Your task to perform on an android device: Show the shopping cart on amazon.com. Add logitech g pro to the cart on amazon.com Image 0: 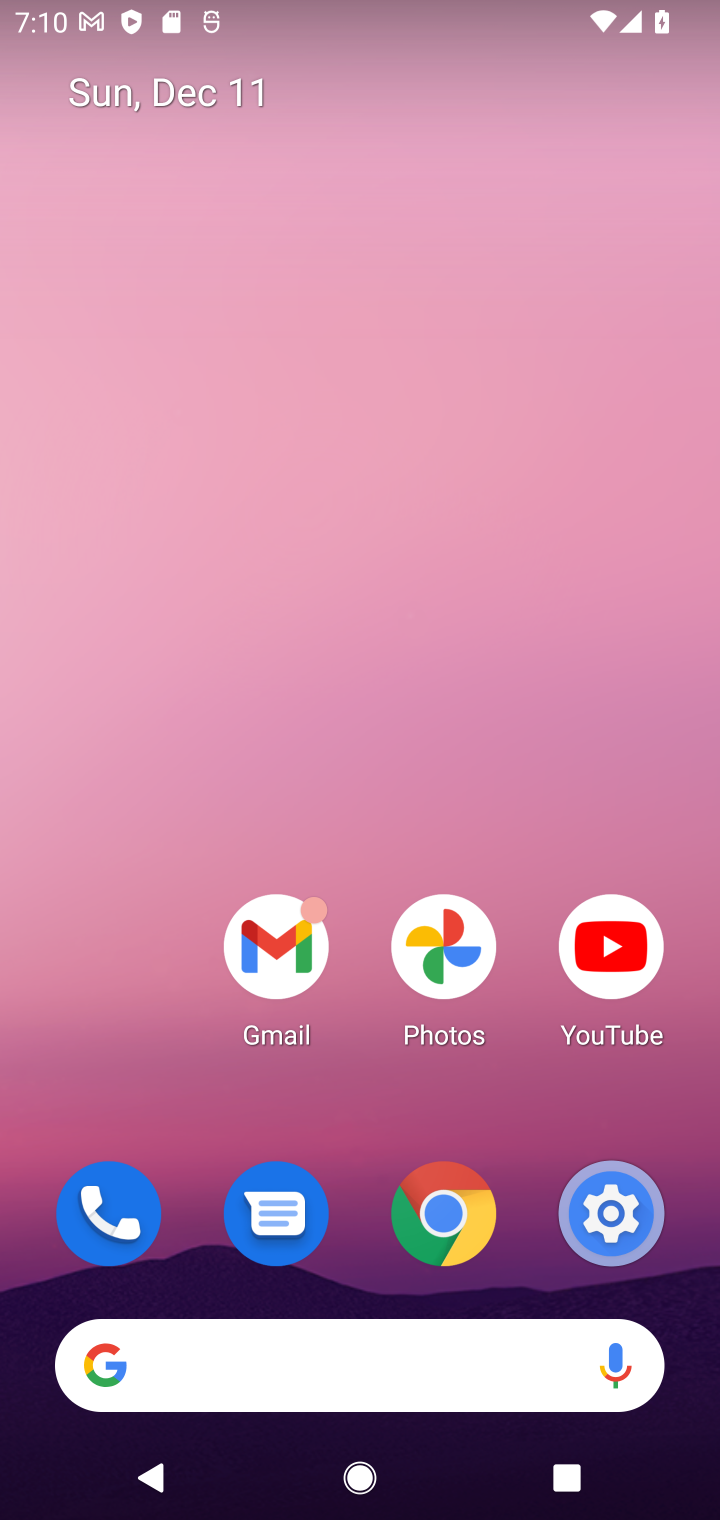
Step 0: click (231, 1370)
Your task to perform on an android device: Show the shopping cart on amazon.com. Add logitech g pro to the cart on amazon.com Image 1: 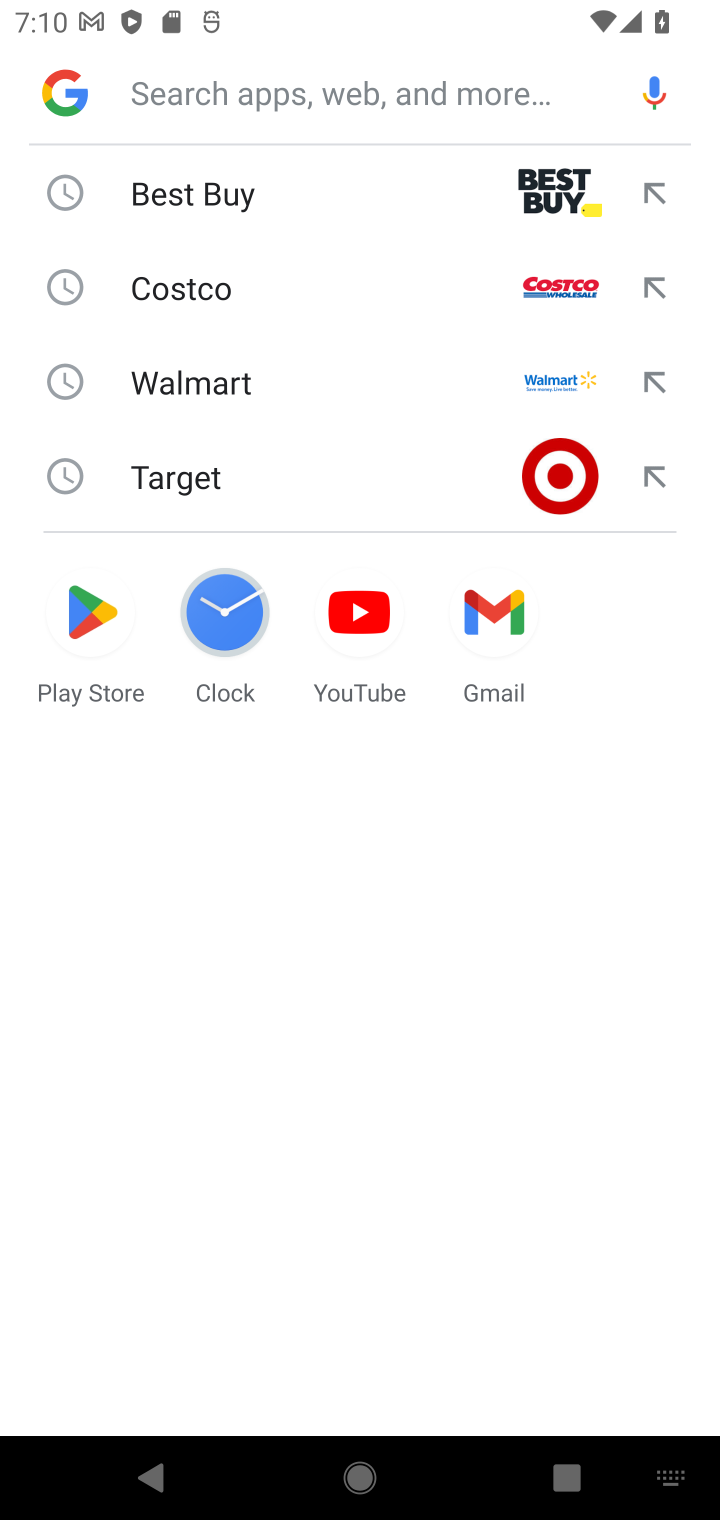
Step 1: type "amazon"
Your task to perform on an android device: Show the shopping cart on amazon.com. Add logitech g pro to the cart on amazon.com Image 2: 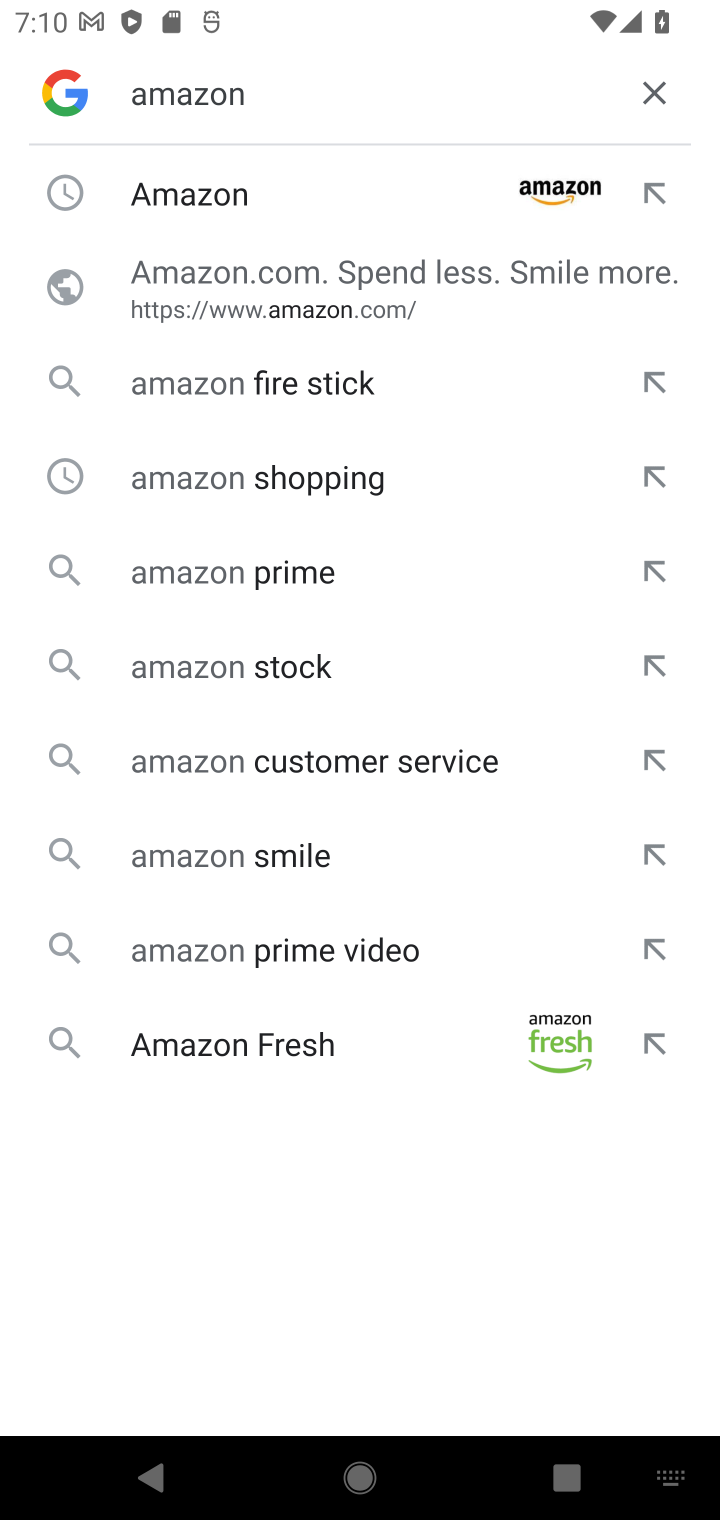
Step 2: click (157, 209)
Your task to perform on an android device: Show the shopping cart on amazon.com. Add logitech g pro to the cart on amazon.com Image 3: 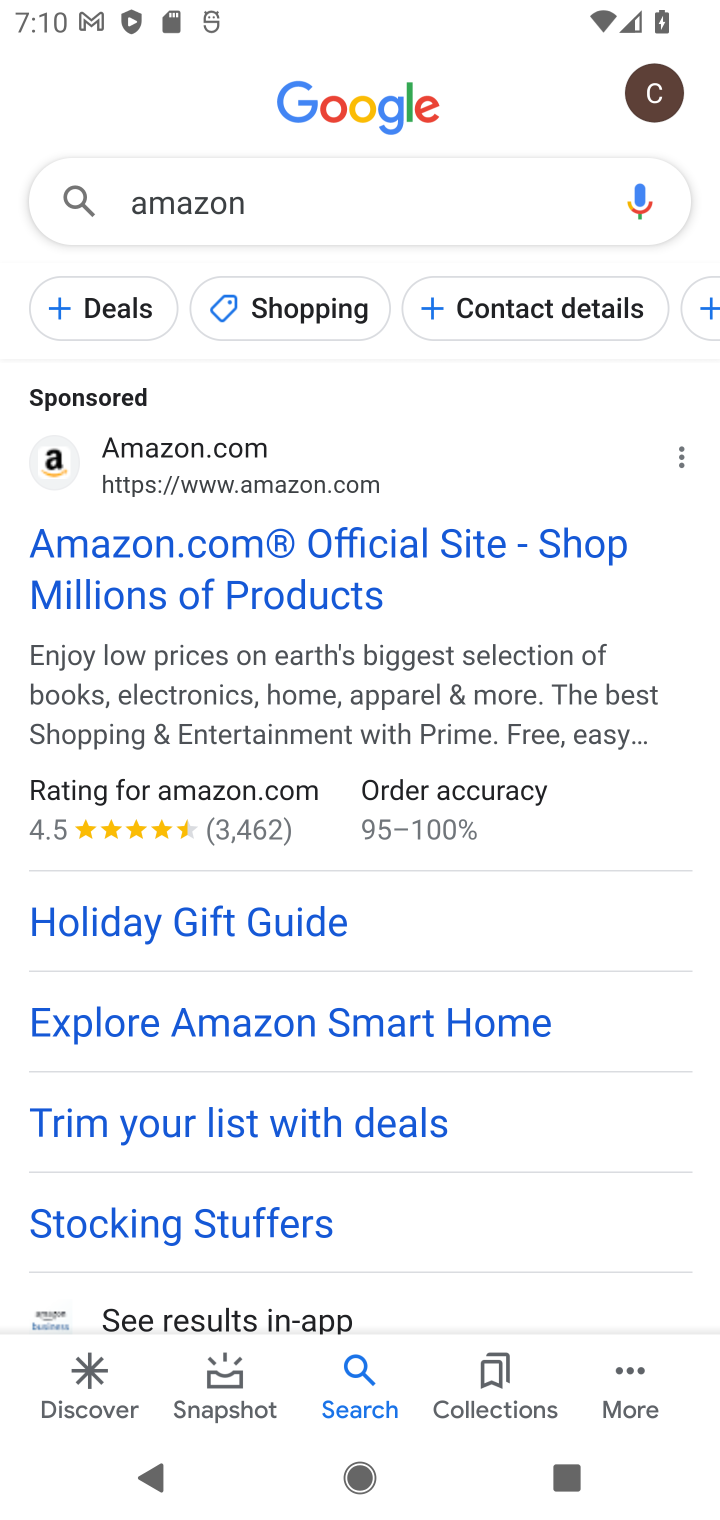
Step 3: click (247, 535)
Your task to perform on an android device: Show the shopping cart on amazon.com. Add logitech g pro to the cart on amazon.com Image 4: 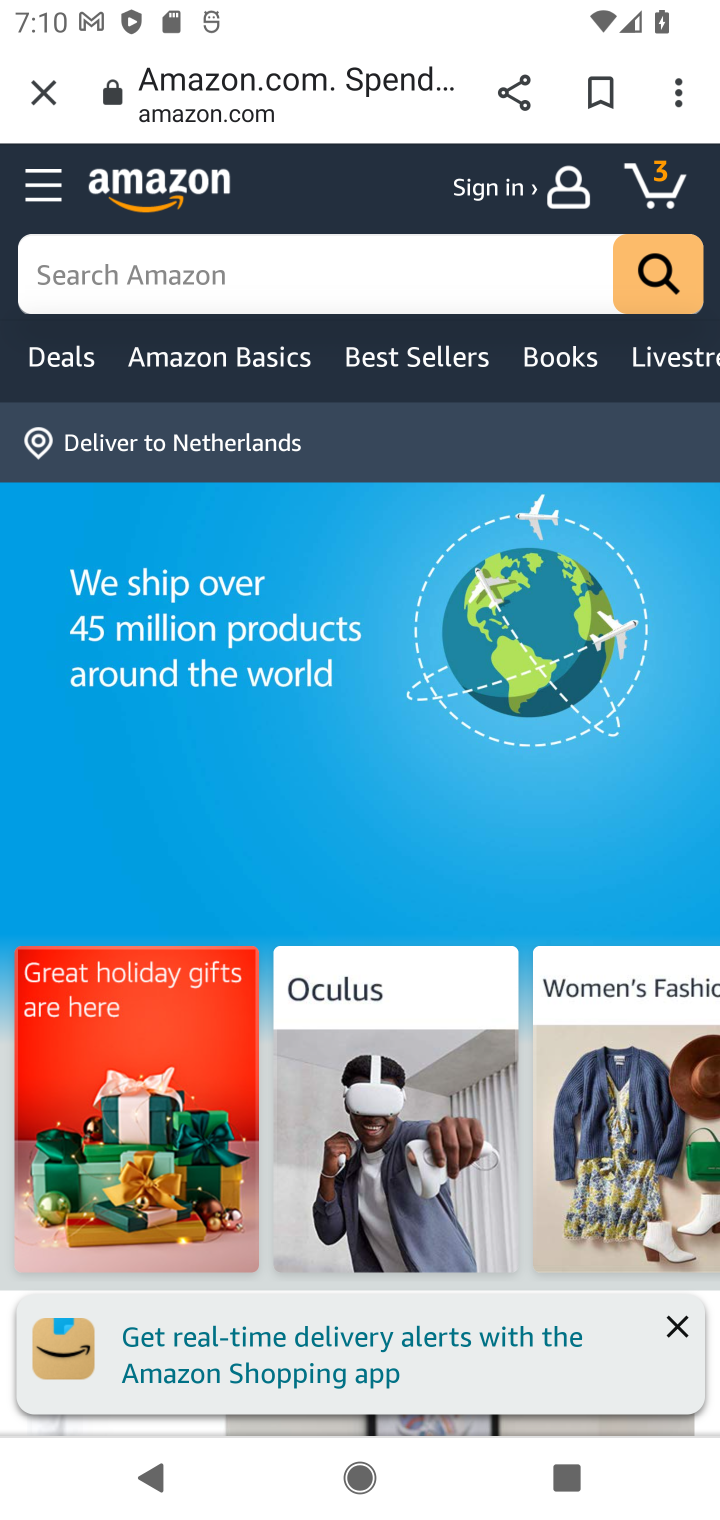
Step 4: click (299, 263)
Your task to perform on an android device: Show the shopping cart on amazon.com. Add logitech g pro to the cart on amazon.com Image 5: 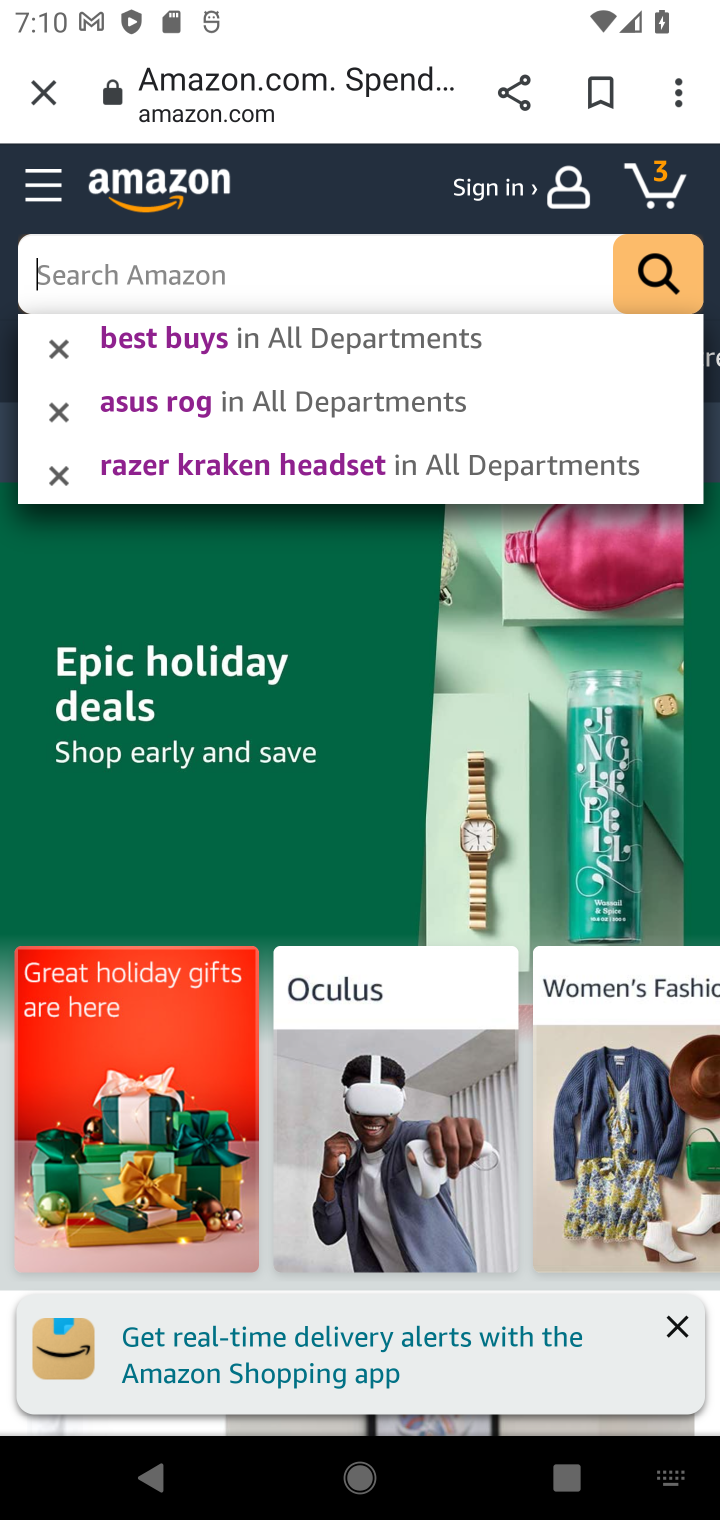
Step 5: type "logitech g pro"
Your task to perform on an android device: Show the shopping cart on amazon.com. Add logitech g pro to the cart on amazon.com Image 6: 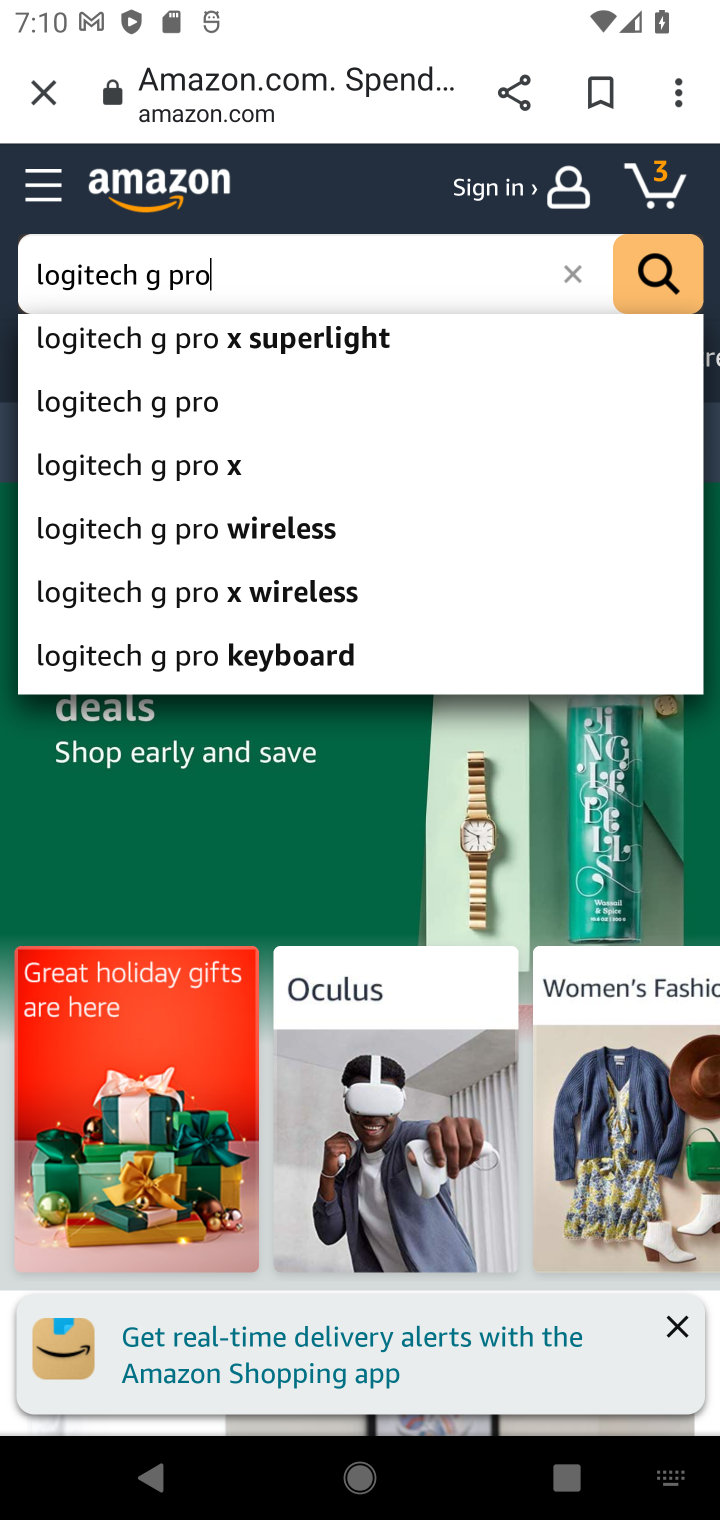
Step 6: click (654, 289)
Your task to perform on an android device: Show the shopping cart on amazon.com. Add logitech g pro to the cart on amazon.com Image 7: 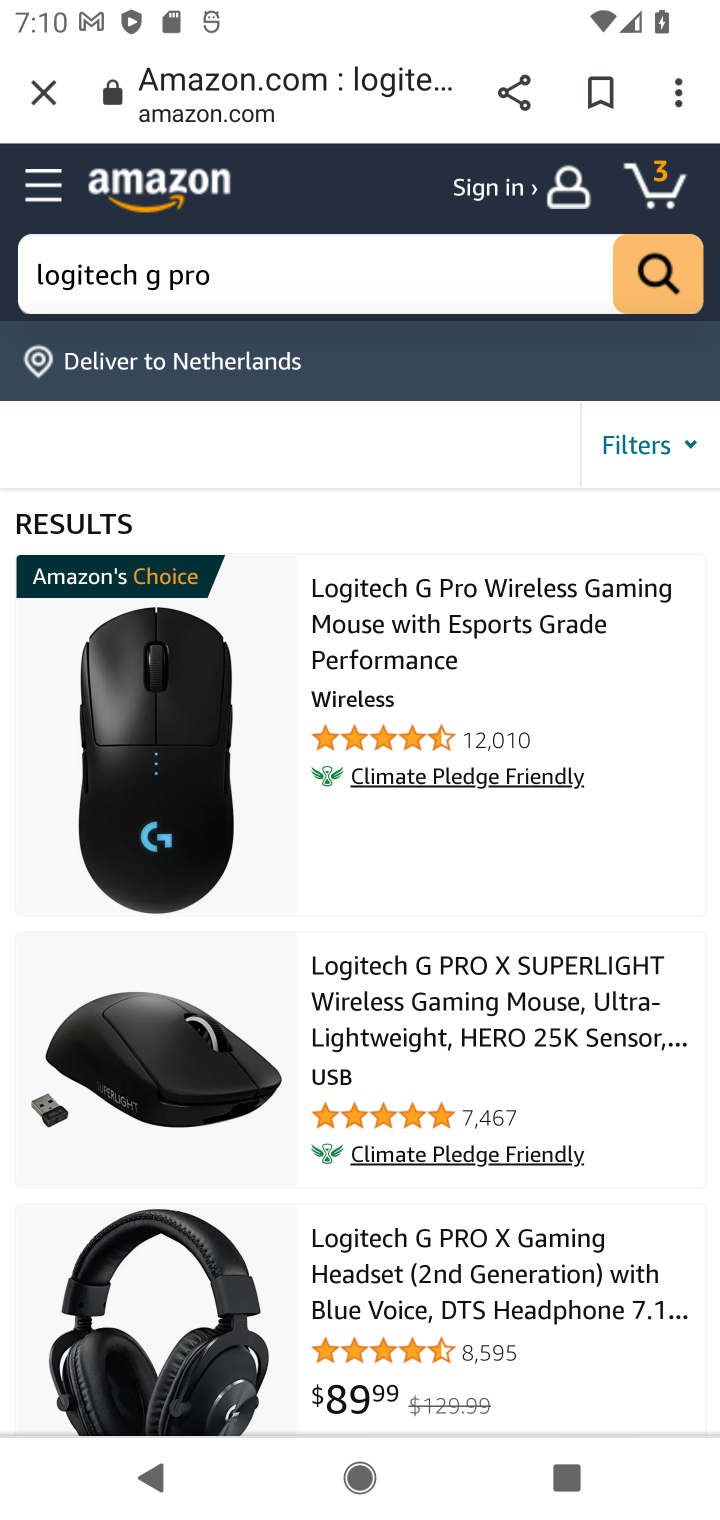
Step 7: click (487, 631)
Your task to perform on an android device: Show the shopping cart on amazon.com. Add logitech g pro to the cart on amazon.com Image 8: 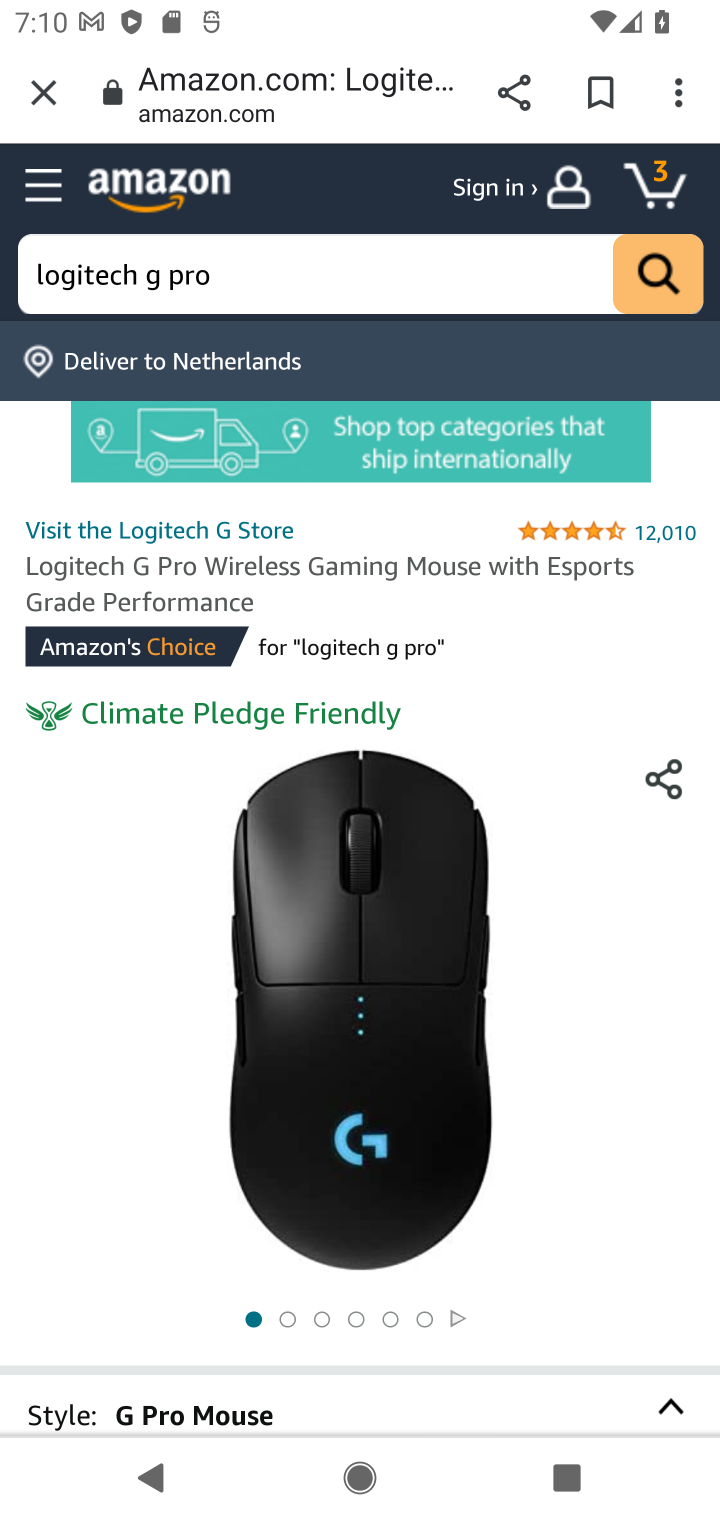
Step 8: drag from (502, 1103) to (446, 537)
Your task to perform on an android device: Show the shopping cart on amazon.com. Add logitech g pro to the cart on amazon.com Image 9: 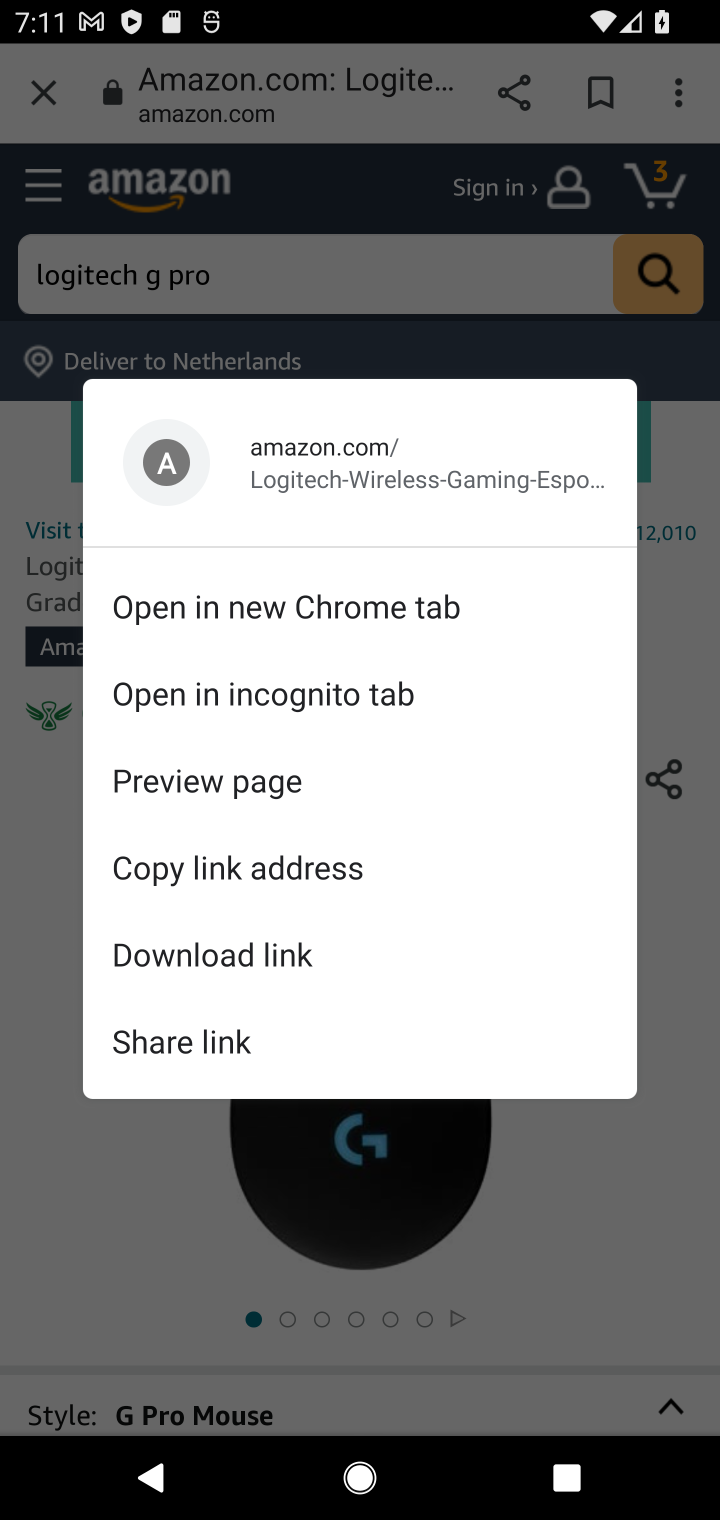
Step 9: click (203, 1161)
Your task to perform on an android device: Show the shopping cart on amazon.com. Add logitech g pro to the cart on amazon.com Image 10: 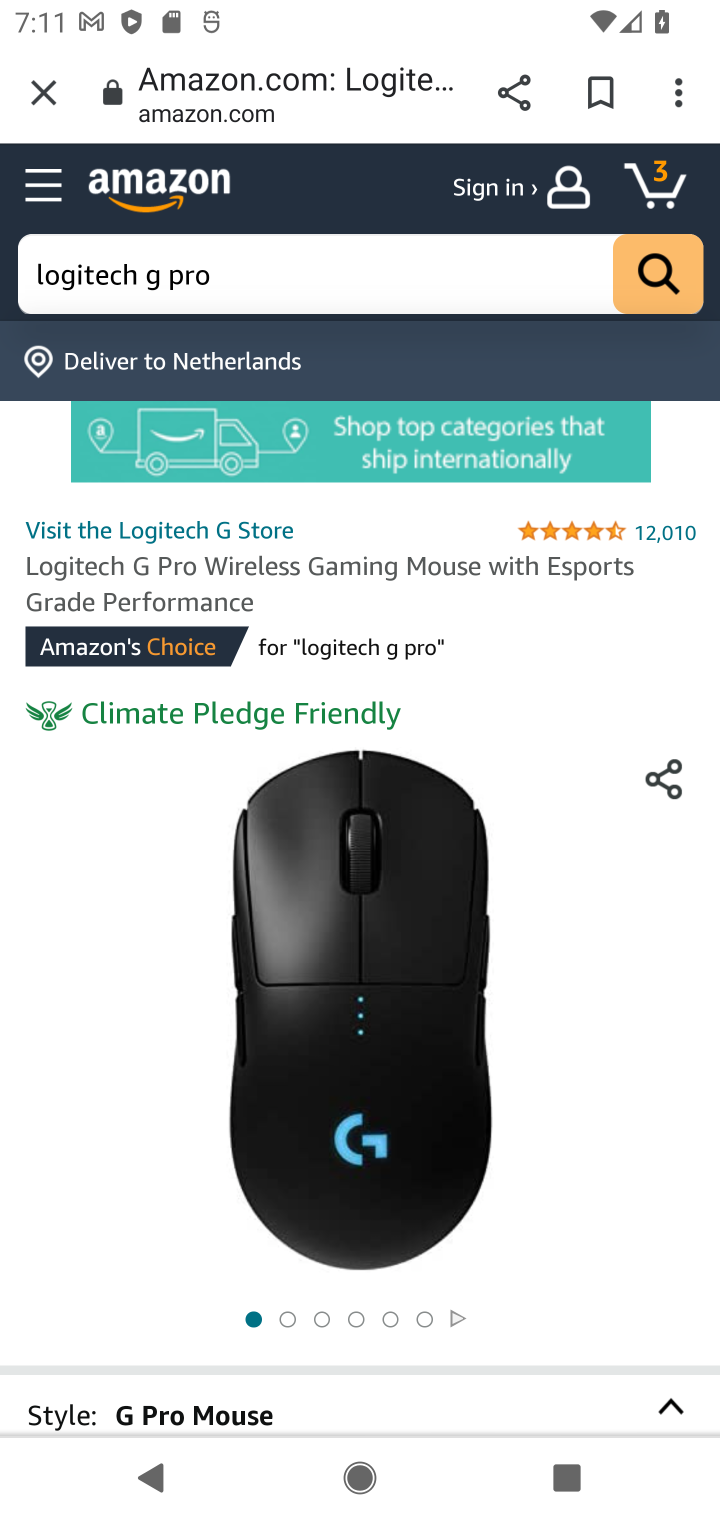
Step 10: drag from (212, 1239) to (201, 190)
Your task to perform on an android device: Show the shopping cart on amazon.com. Add logitech g pro to the cart on amazon.com Image 11: 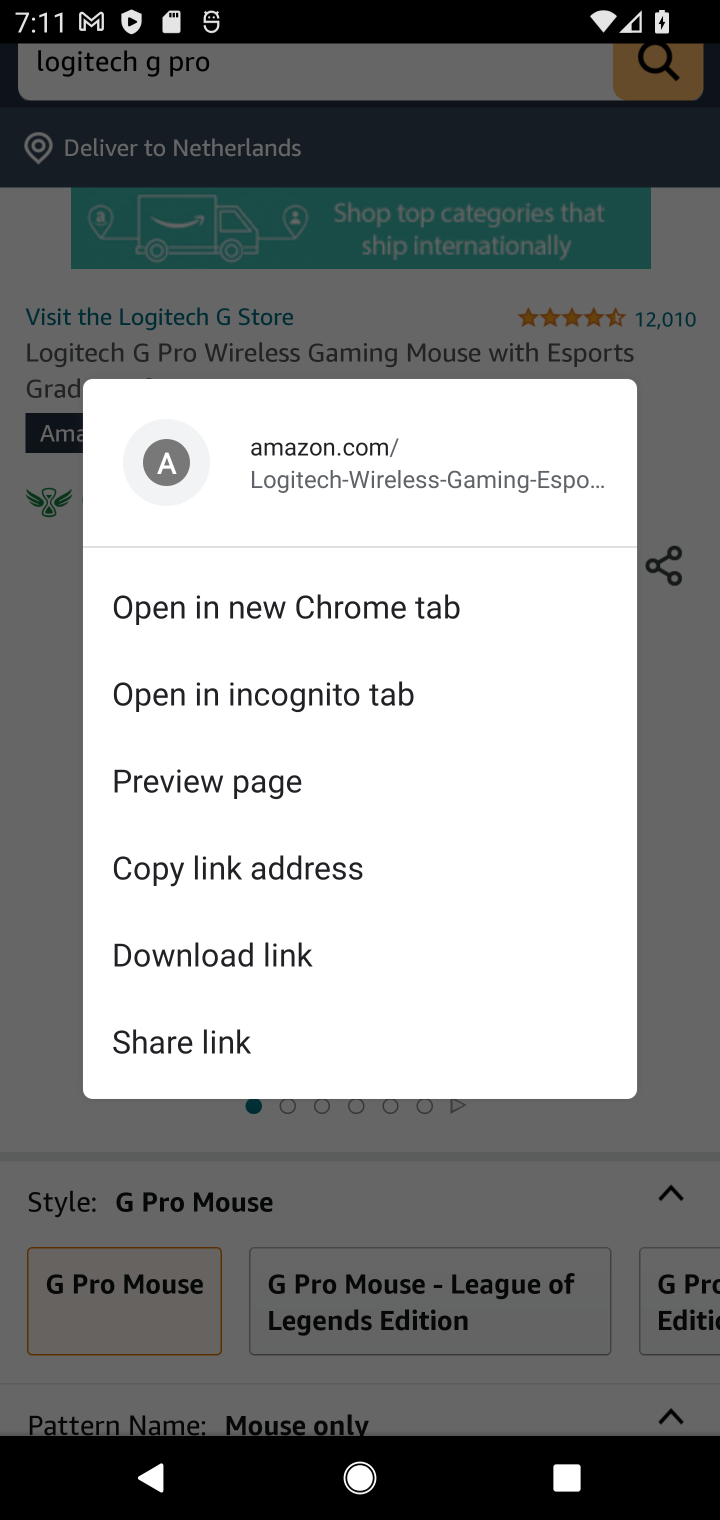
Step 11: click (598, 1205)
Your task to perform on an android device: Show the shopping cart on amazon.com. Add logitech g pro to the cart on amazon.com Image 12: 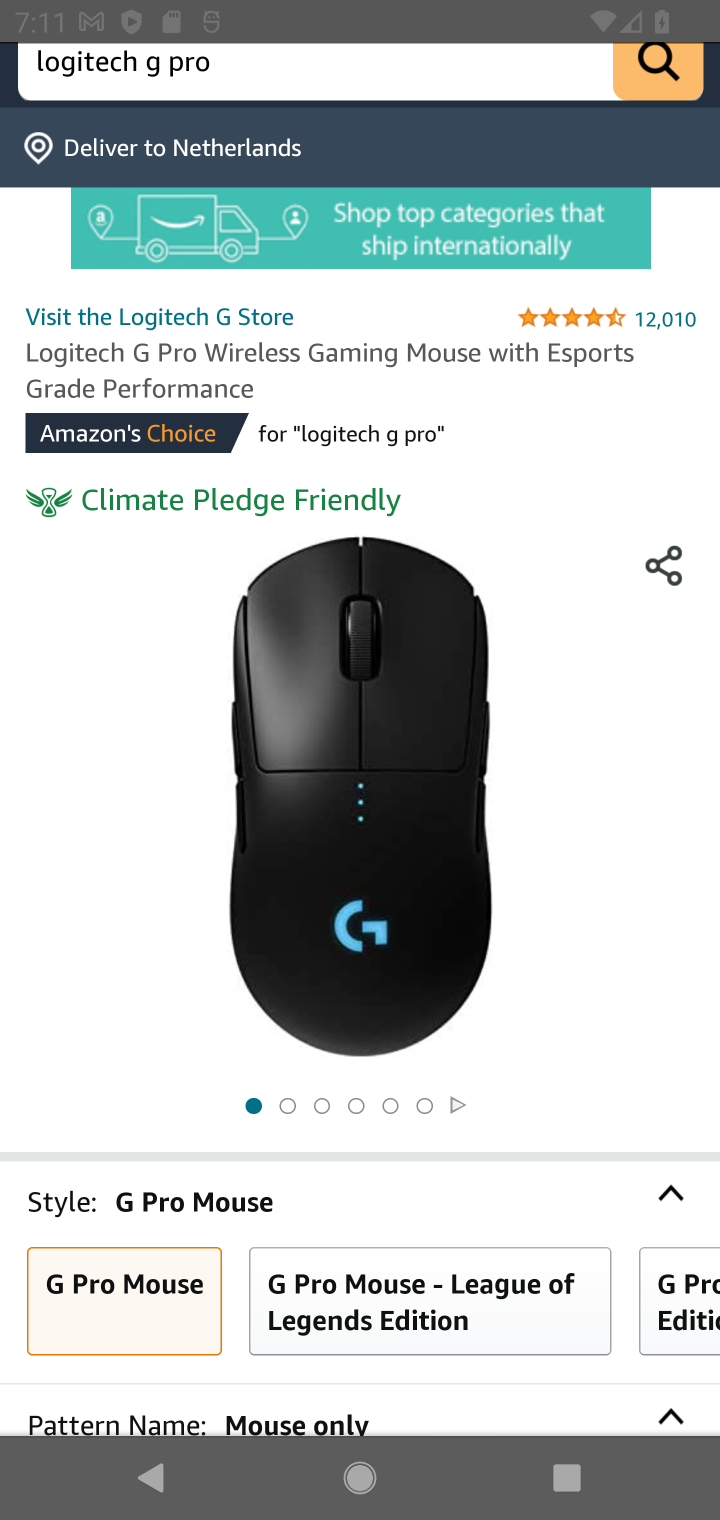
Step 12: drag from (598, 1205) to (511, 366)
Your task to perform on an android device: Show the shopping cart on amazon.com. Add logitech g pro to the cart on amazon.com Image 13: 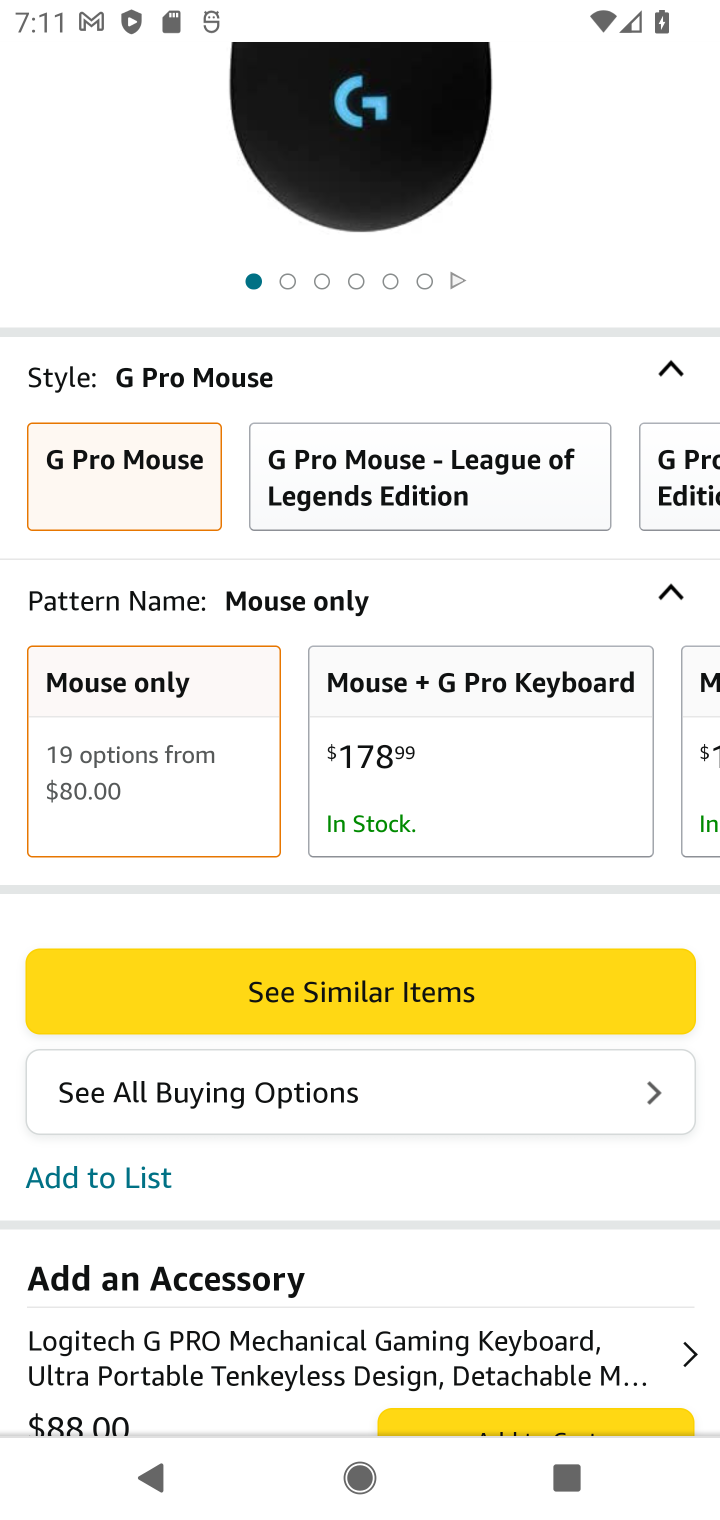
Step 13: drag from (542, 1263) to (549, 648)
Your task to perform on an android device: Show the shopping cart on amazon.com. Add logitech g pro to the cart on amazon.com Image 14: 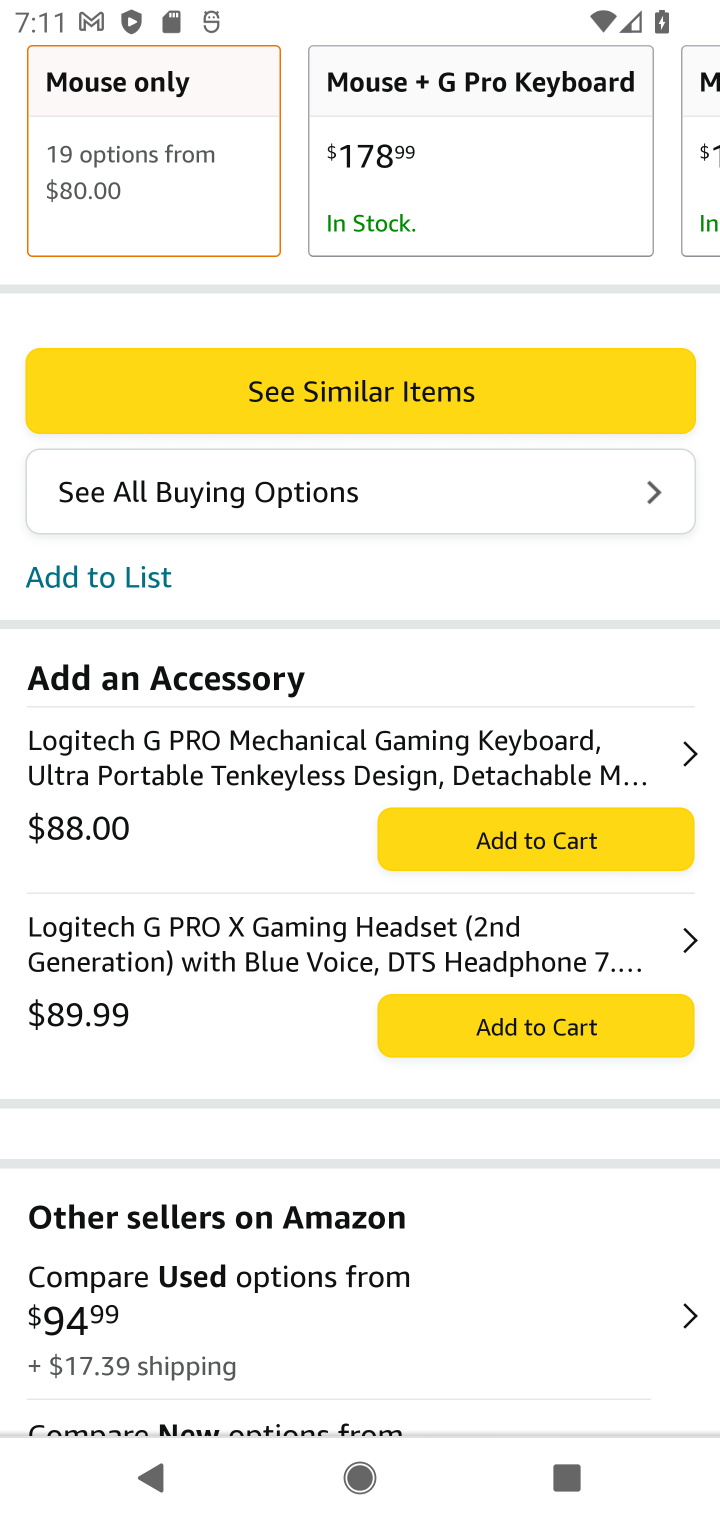
Step 14: click (577, 871)
Your task to perform on an android device: Show the shopping cart on amazon.com. Add logitech g pro to the cart on amazon.com Image 15: 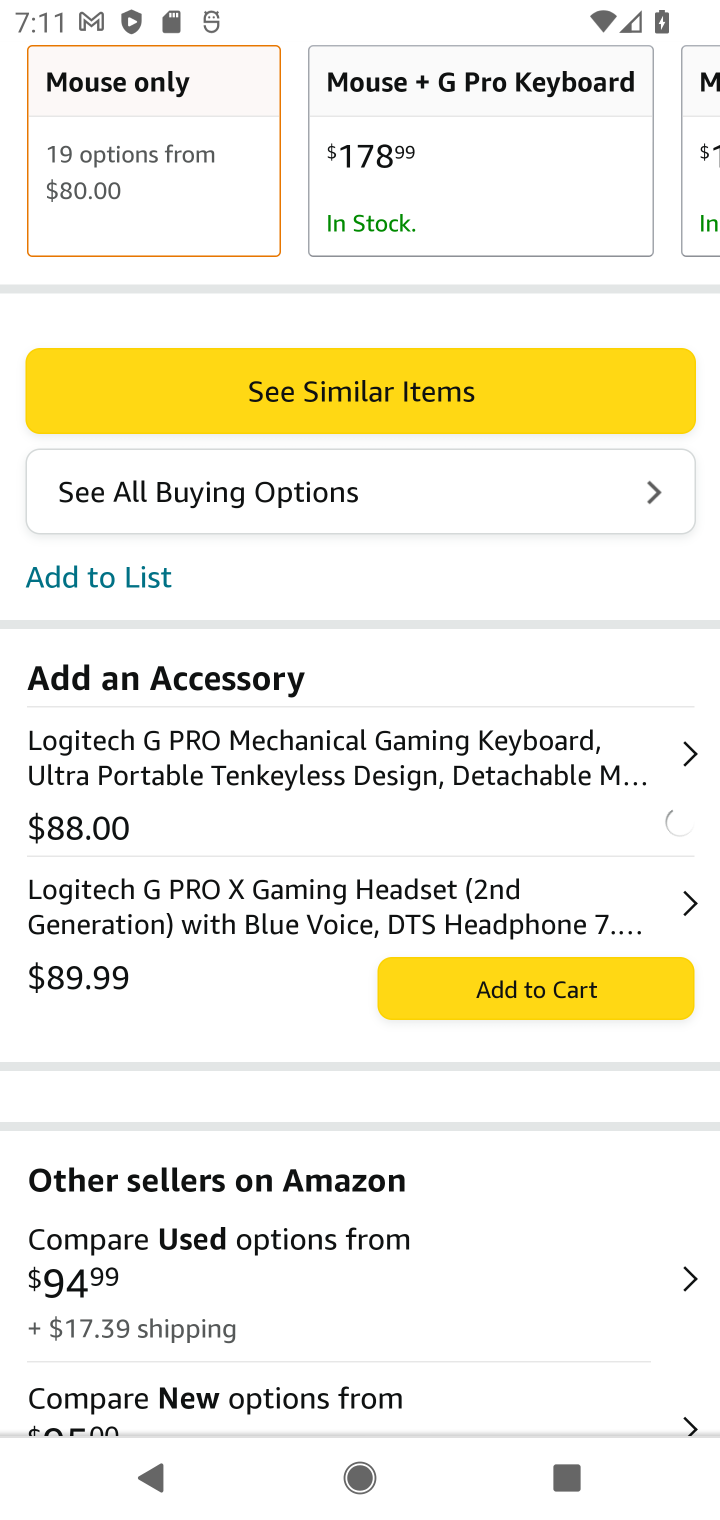
Step 15: click (595, 1052)
Your task to perform on an android device: Show the shopping cart on amazon.com. Add logitech g pro to the cart on amazon.com Image 16: 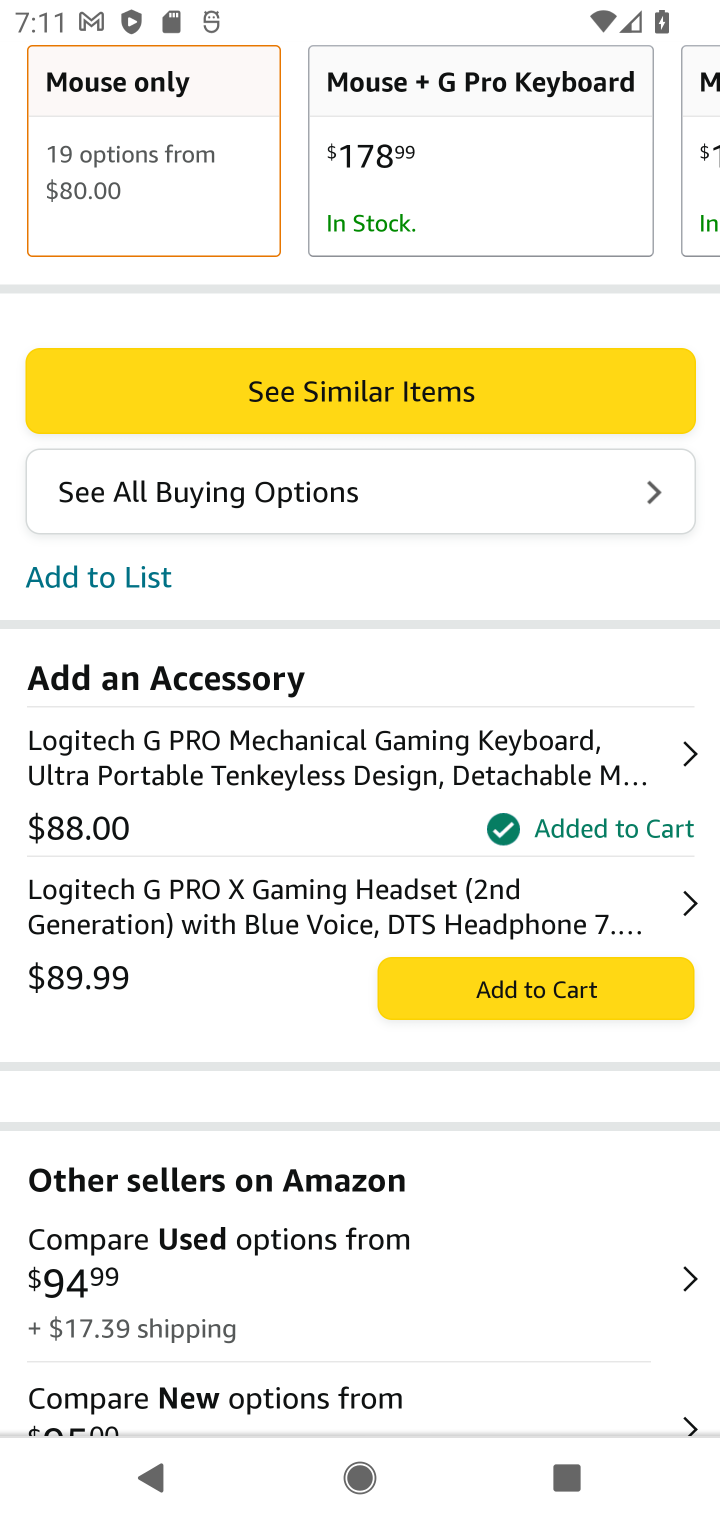
Step 16: click (596, 1012)
Your task to perform on an android device: Show the shopping cart on amazon.com. Add logitech g pro to the cart on amazon.com Image 17: 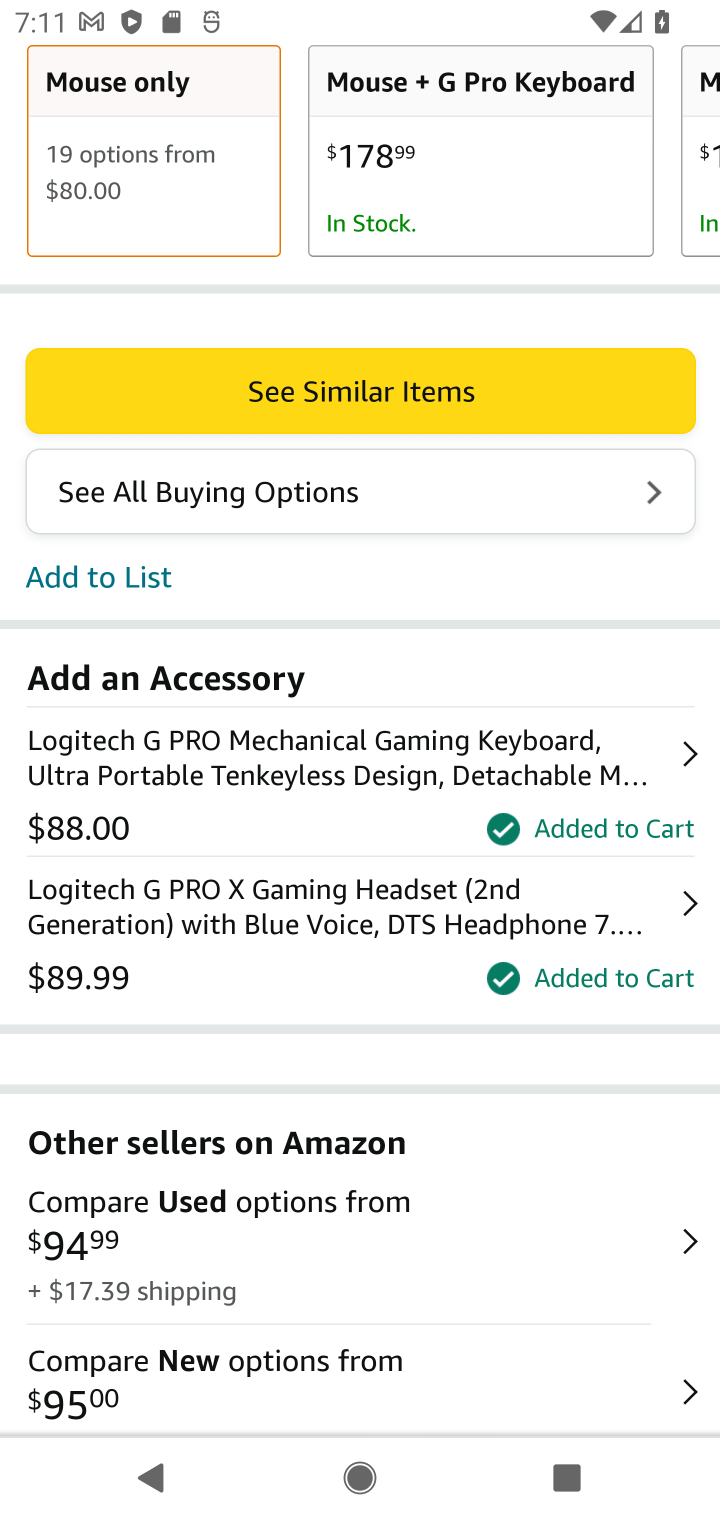
Step 17: task complete